Your task to perform on an android device: turn on wifi Image 0: 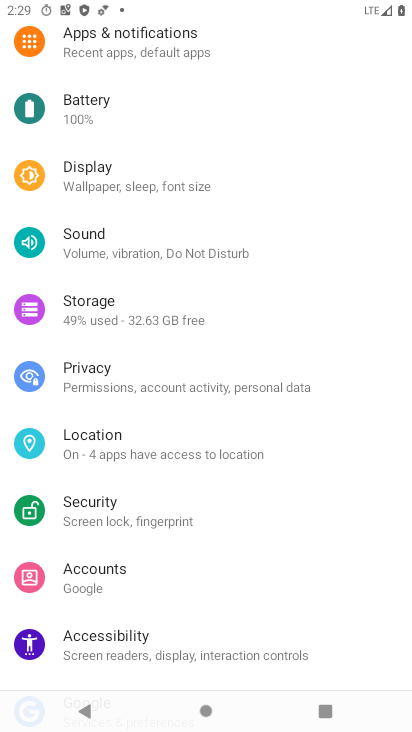
Step 0: drag from (183, 238) to (228, 661)
Your task to perform on an android device: turn on wifi Image 1: 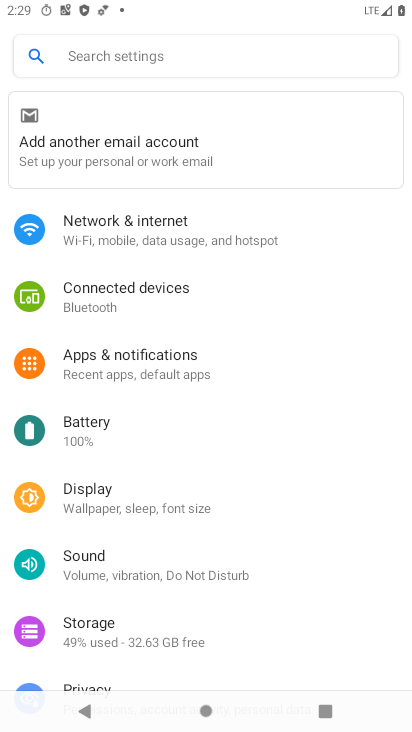
Step 1: drag from (183, 215) to (175, 598)
Your task to perform on an android device: turn on wifi Image 2: 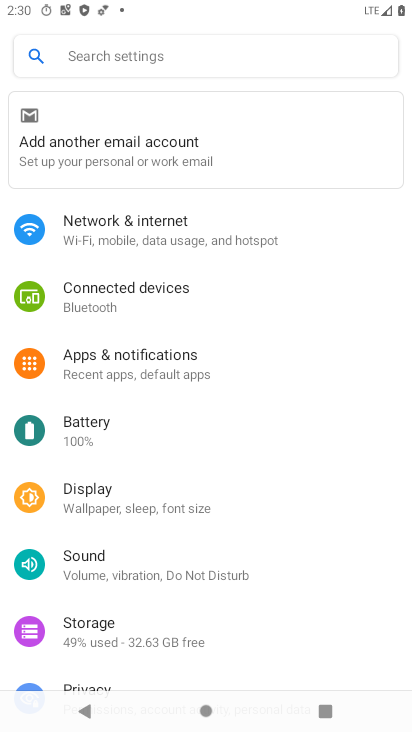
Step 2: click (90, 231)
Your task to perform on an android device: turn on wifi Image 3: 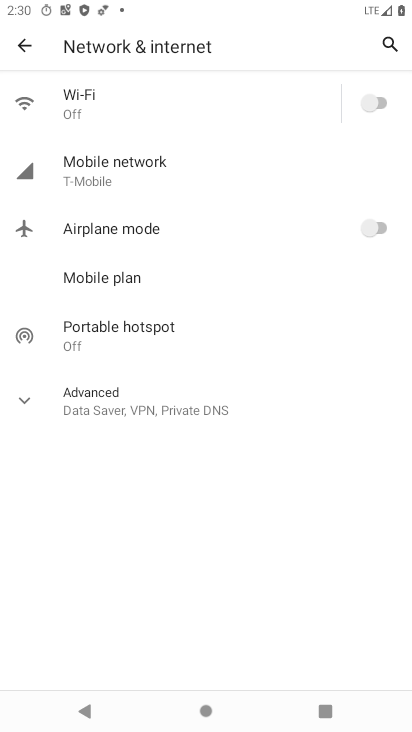
Step 3: click (376, 94)
Your task to perform on an android device: turn on wifi Image 4: 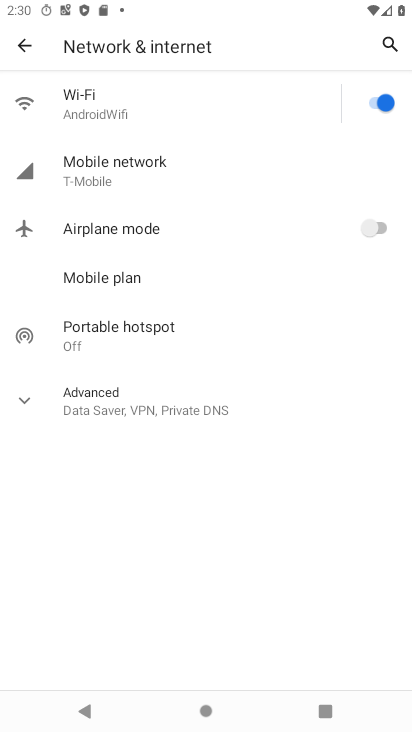
Step 4: task complete